Your task to perform on an android device: Go to CNN.com Image 0: 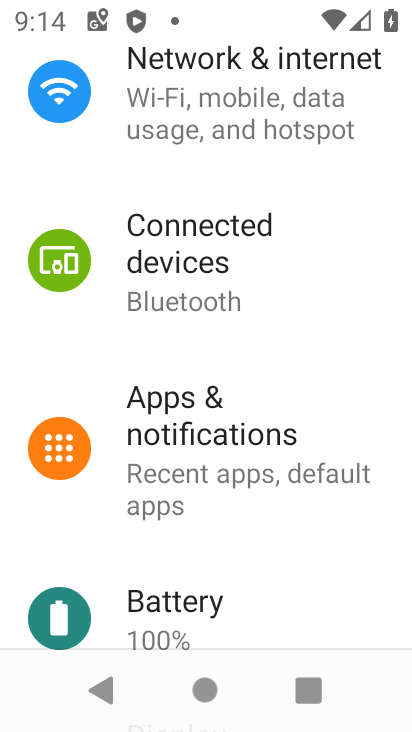
Step 0: press home button
Your task to perform on an android device: Go to CNN.com Image 1: 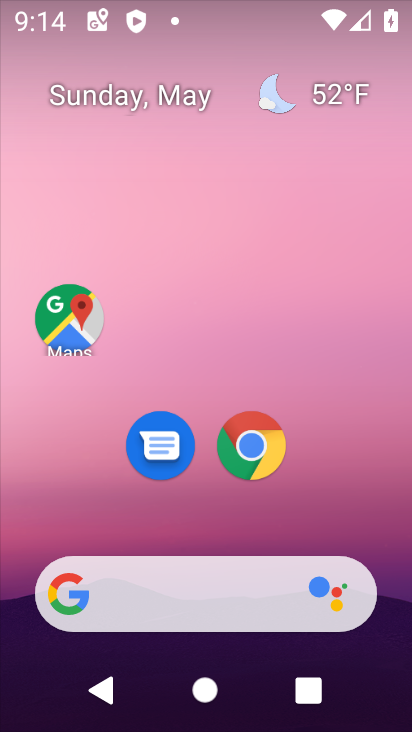
Step 1: click (250, 447)
Your task to perform on an android device: Go to CNN.com Image 2: 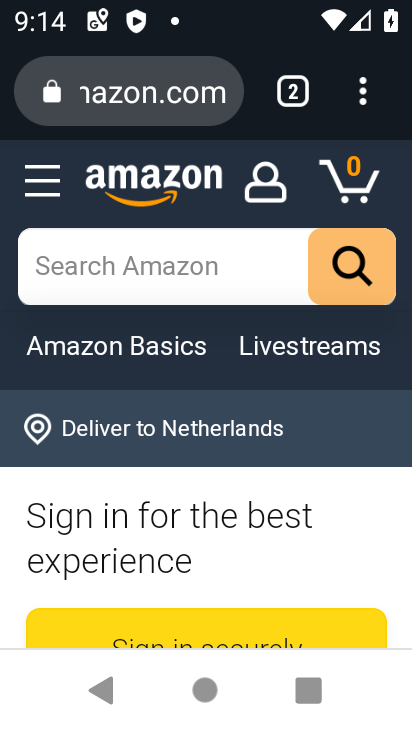
Step 2: click (359, 87)
Your task to perform on an android device: Go to CNN.com Image 3: 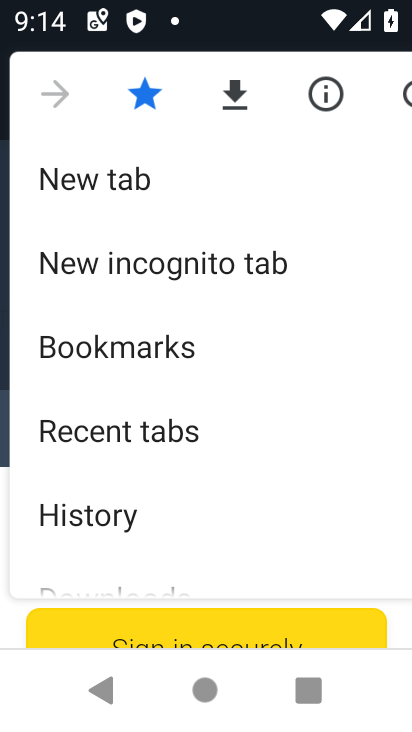
Step 3: click (110, 177)
Your task to perform on an android device: Go to CNN.com Image 4: 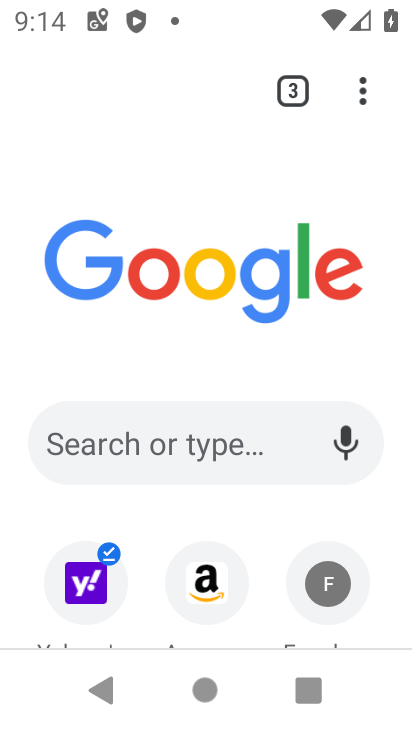
Step 4: click (163, 437)
Your task to perform on an android device: Go to CNN.com Image 5: 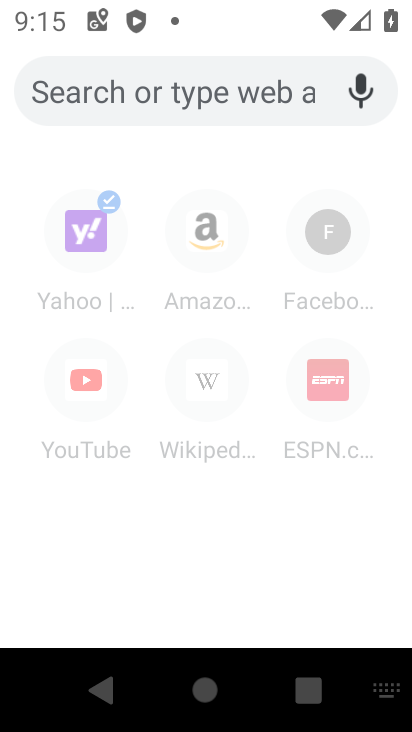
Step 5: type "cnn.com"
Your task to perform on an android device: Go to CNN.com Image 6: 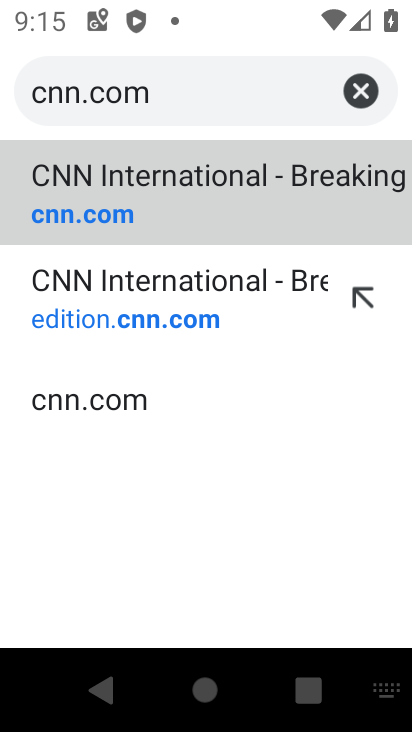
Step 6: click (187, 177)
Your task to perform on an android device: Go to CNN.com Image 7: 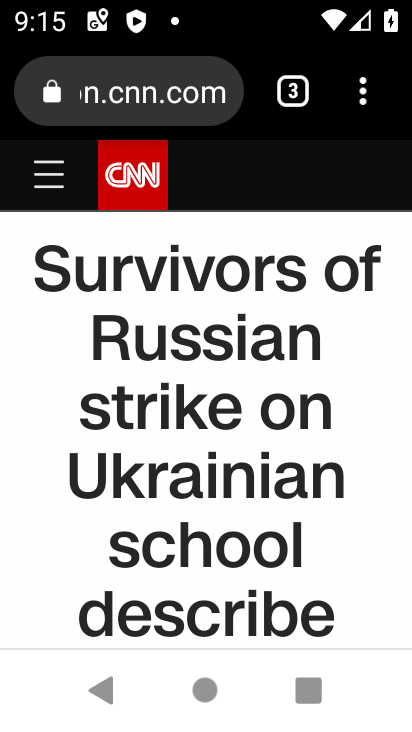
Step 7: task complete